Your task to perform on an android device: turn on showing notifications on the lock screen Image 0: 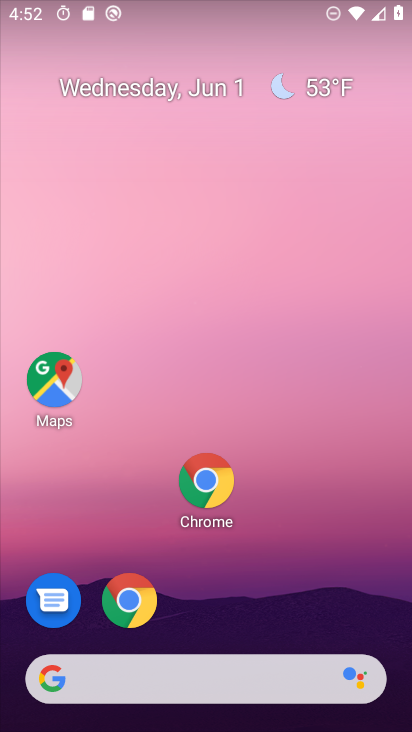
Step 0: drag from (239, 566) to (147, 135)
Your task to perform on an android device: turn on showing notifications on the lock screen Image 1: 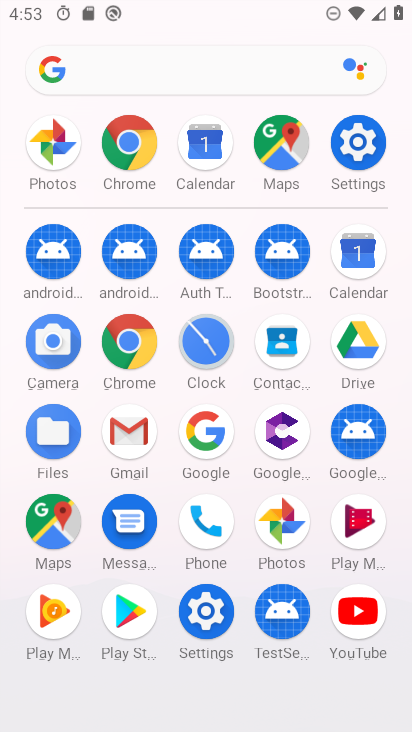
Step 1: click (345, 139)
Your task to perform on an android device: turn on showing notifications on the lock screen Image 2: 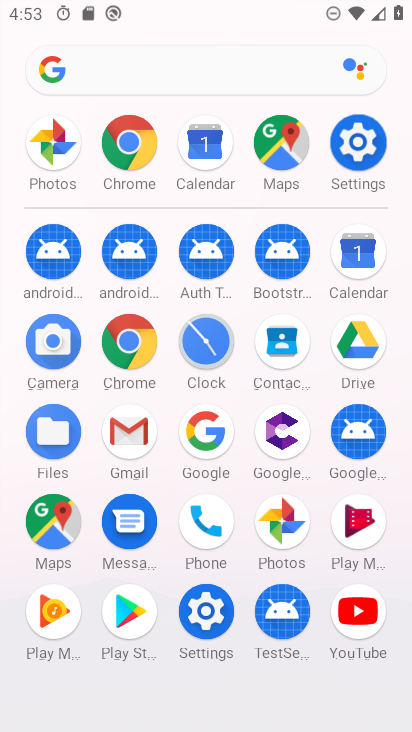
Step 2: click (357, 147)
Your task to perform on an android device: turn on showing notifications on the lock screen Image 3: 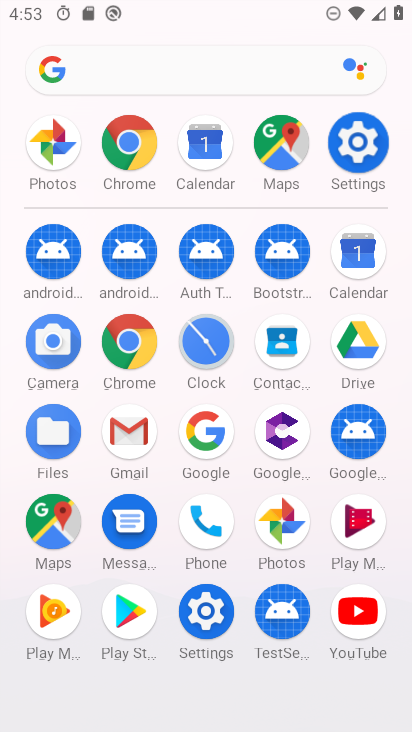
Step 3: click (360, 151)
Your task to perform on an android device: turn on showing notifications on the lock screen Image 4: 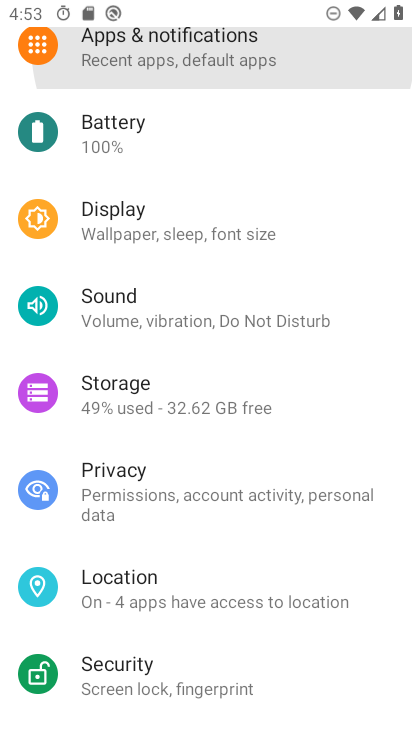
Step 4: click (360, 151)
Your task to perform on an android device: turn on showing notifications on the lock screen Image 5: 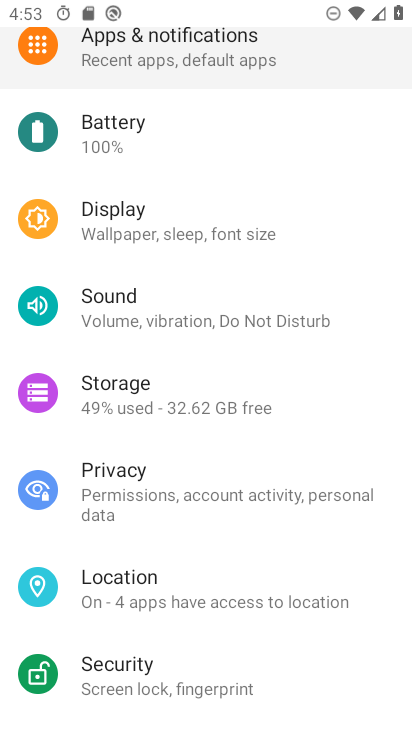
Step 5: click (357, 152)
Your task to perform on an android device: turn on showing notifications on the lock screen Image 6: 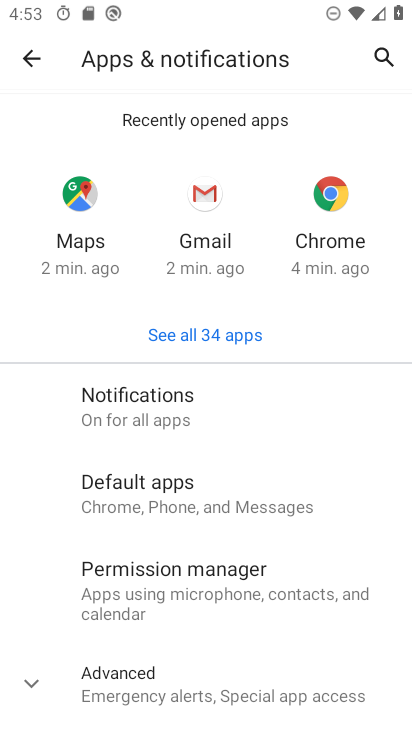
Step 6: click (35, 56)
Your task to perform on an android device: turn on showing notifications on the lock screen Image 7: 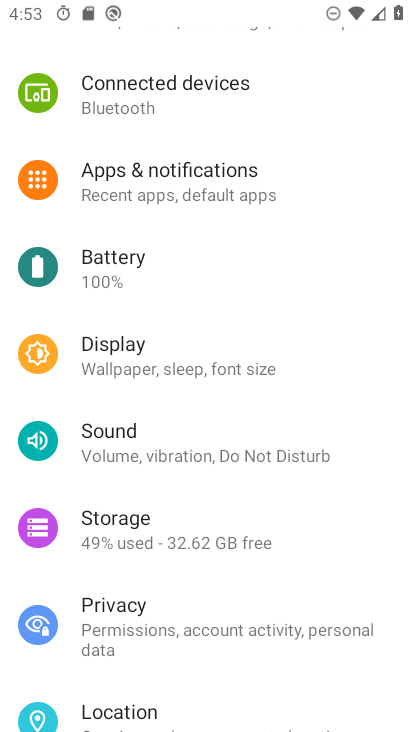
Step 7: click (137, 172)
Your task to perform on an android device: turn on showing notifications on the lock screen Image 8: 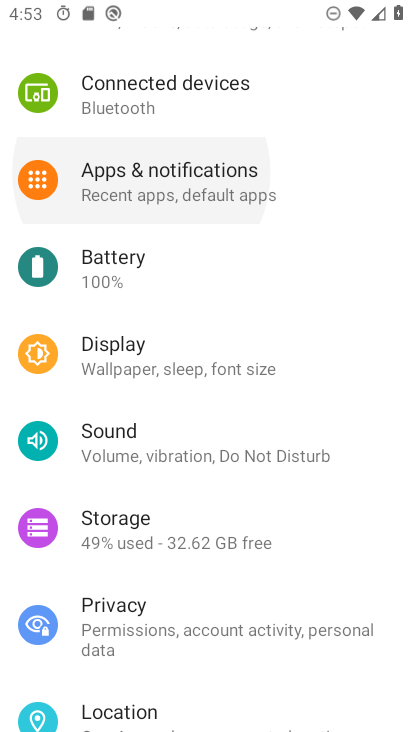
Step 8: click (137, 173)
Your task to perform on an android device: turn on showing notifications on the lock screen Image 9: 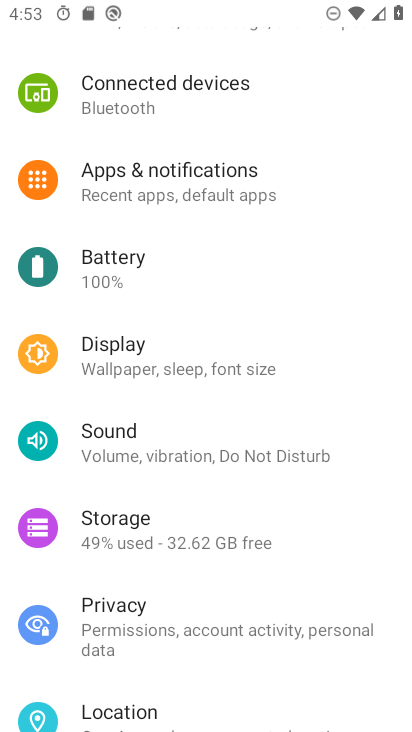
Step 9: click (139, 175)
Your task to perform on an android device: turn on showing notifications on the lock screen Image 10: 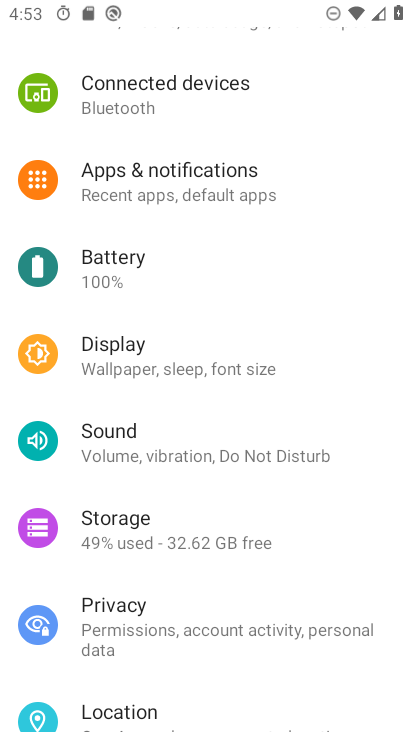
Step 10: click (152, 176)
Your task to perform on an android device: turn on showing notifications on the lock screen Image 11: 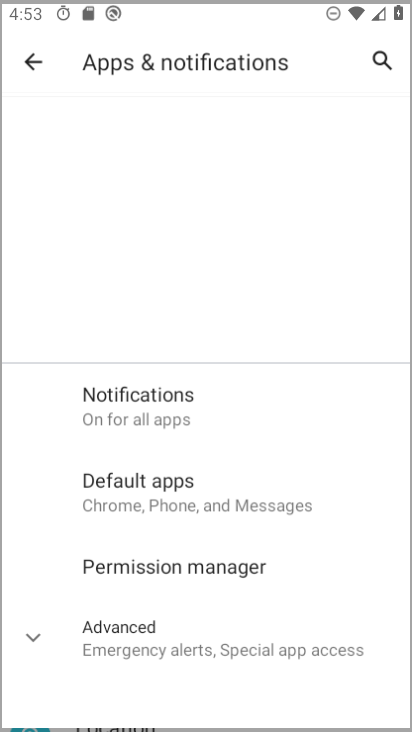
Step 11: click (153, 177)
Your task to perform on an android device: turn on showing notifications on the lock screen Image 12: 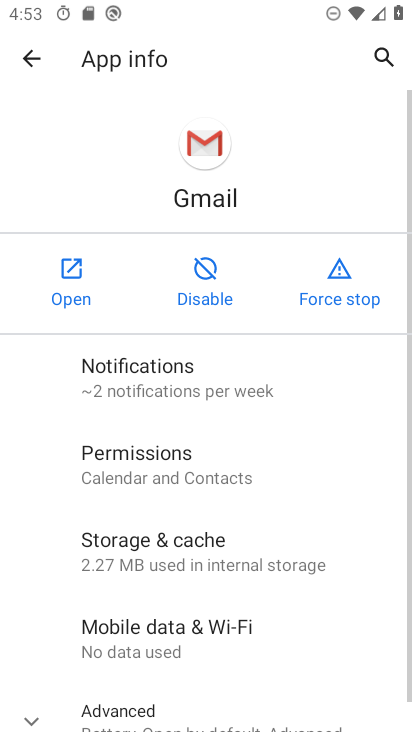
Step 12: click (165, 395)
Your task to perform on an android device: turn on showing notifications on the lock screen Image 13: 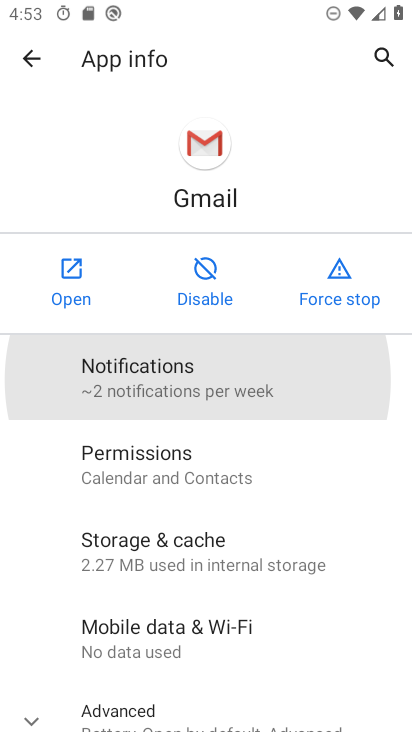
Step 13: click (175, 394)
Your task to perform on an android device: turn on showing notifications on the lock screen Image 14: 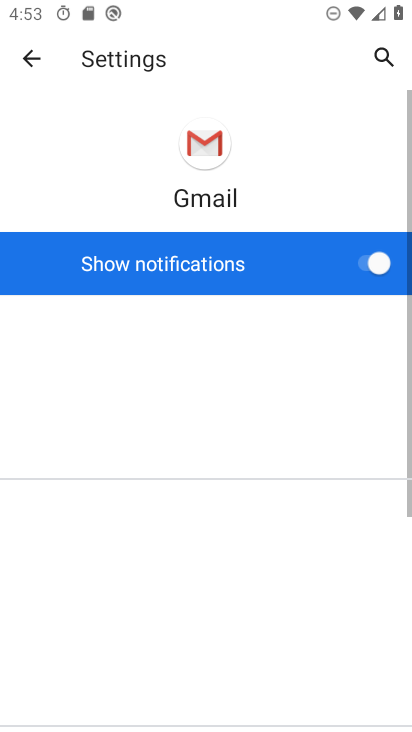
Step 14: click (170, 386)
Your task to perform on an android device: turn on showing notifications on the lock screen Image 15: 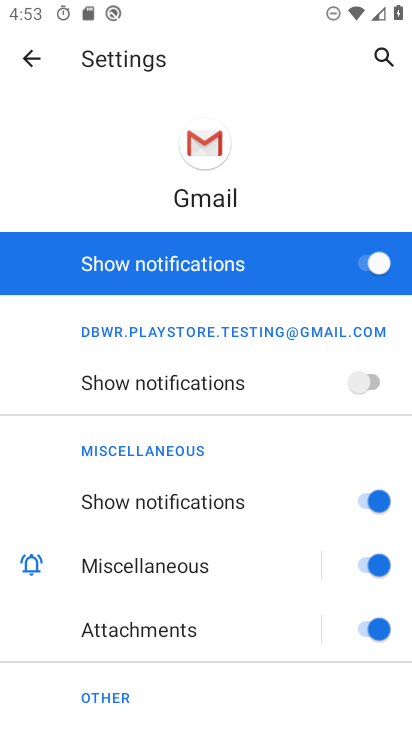
Step 15: click (139, 36)
Your task to perform on an android device: turn on showing notifications on the lock screen Image 16: 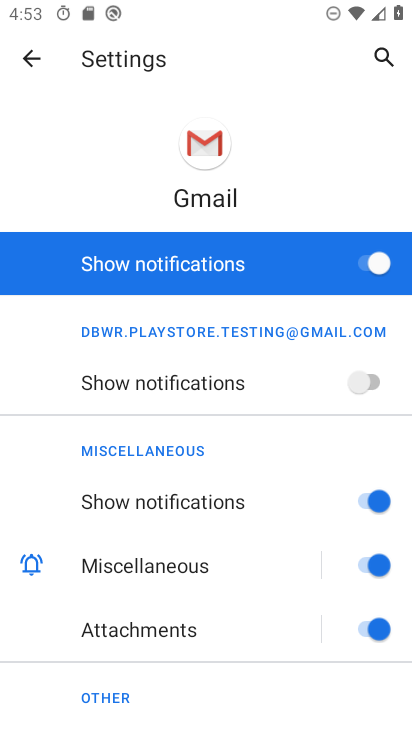
Step 16: drag from (210, 466) to (233, 171)
Your task to perform on an android device: turn on showing notifications on the lock screen Image 17: 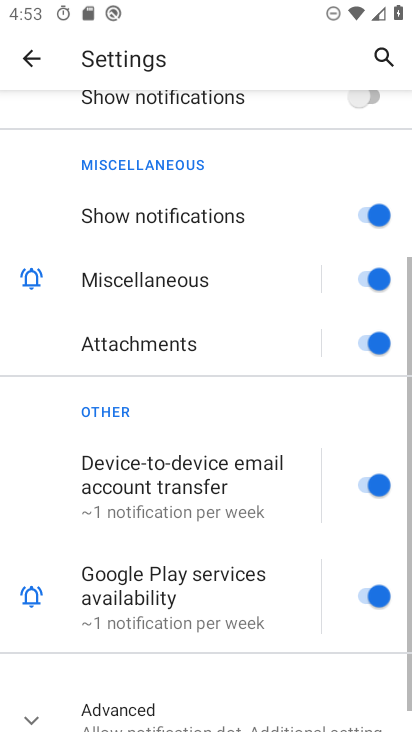
Step 17: drag from (205, 135) to (177, 40)
Your task to perform on an android device: turn on showing notifications on the lock screen Image 18: 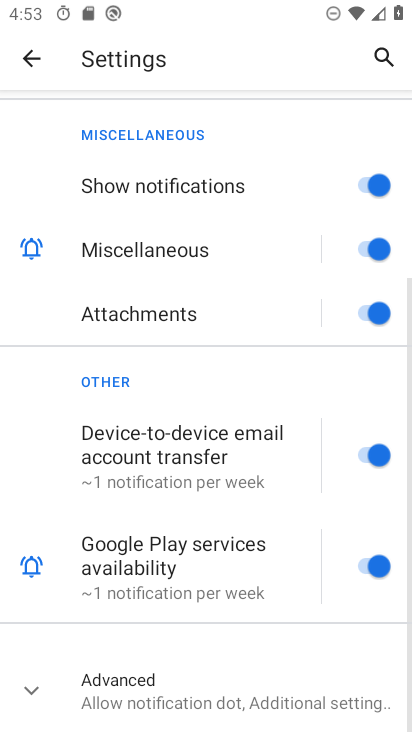
Step 18: drag from (210, 460) to (160, 37)
Your task to perform on an android device: turn on showing notifications on the lock screen Image 19: 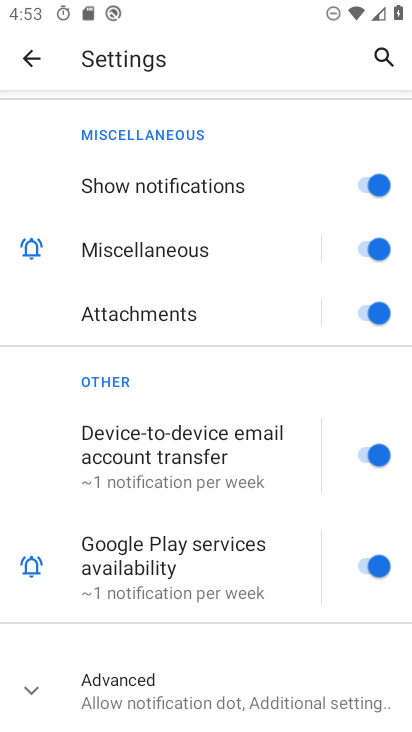
Step 19: drag from (283, 542) to (163, 173)
Your task to perform on an android device: turn on showing notifications on the lock screen Image 20: 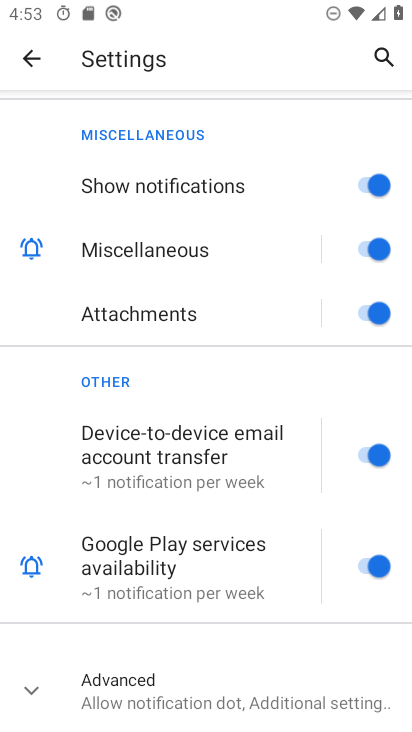
Step 20: click (15, 53)
Your task to perform on an android device: turn on showing notifications on the lock screen Image 21: 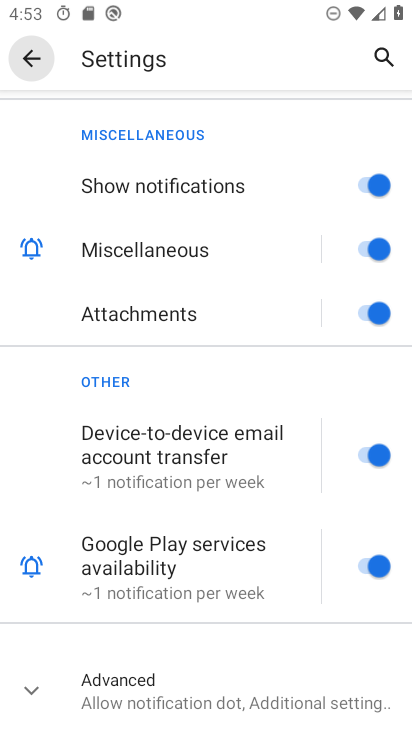
Step 21: click (36, 58)
Your task to perform on an android device: turn on showing notifications on the lock screen Image 22: 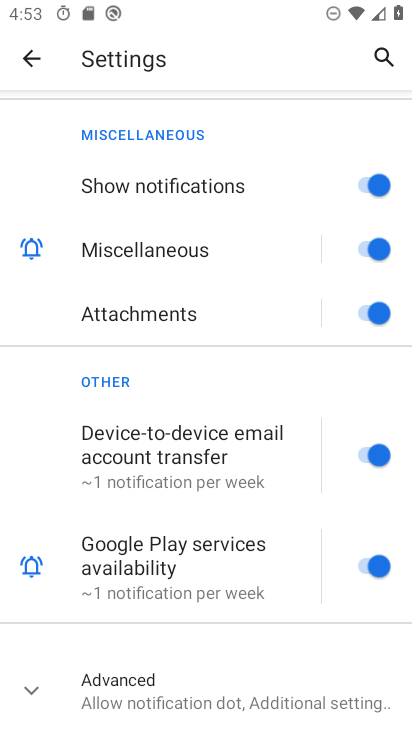
Step 22: click (36, 58)
Your task to perform on an android device: turn on showing notifications on the lock screen Image 23: 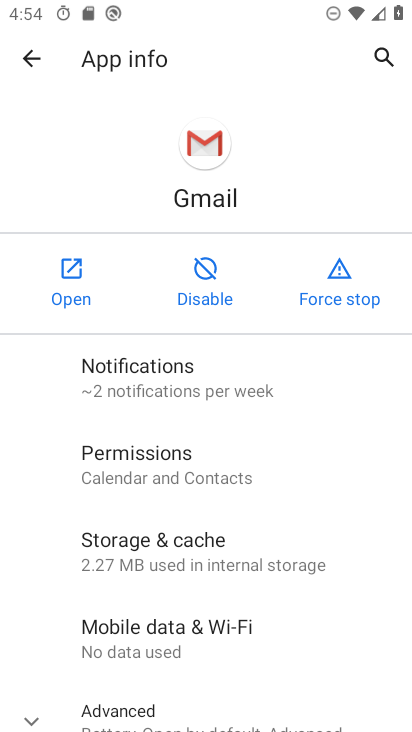
Step 23: click (31, 55)
Your task to perform on an android device: turn on showing notifications on the lock screen Image 24: 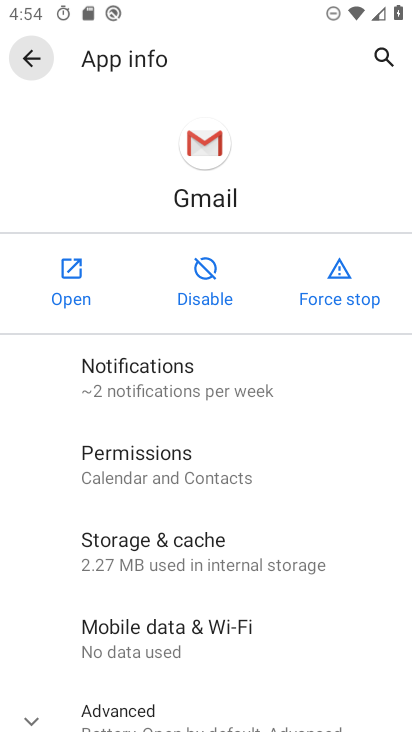
Step 24: click (29, 55)
Your task to perform on an android device: turn on showing notifications on the lock screen Image 25: 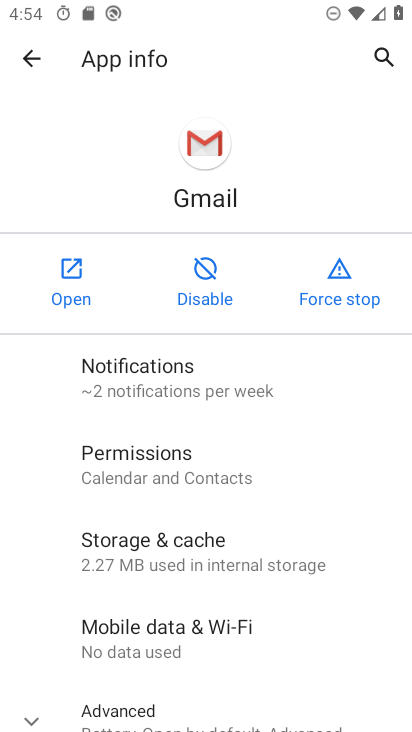
Step 25: click (25, 58)
Your task to perform on an android device: turn on showing notifications on the lock screen Image 26: 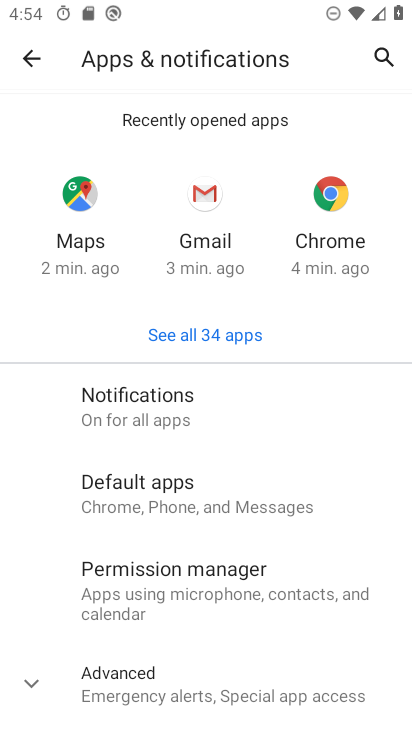
Step 26: drag from (183, 615) to (142, 253)
Your task to perform on an android device: turn on showing notifications on the lock screen Image 27: 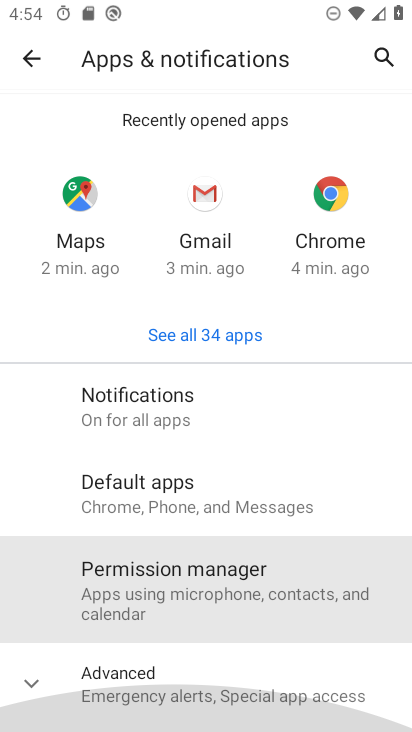
Step 27: drag from (260, 551) to (223, 289)
Your task to perform on an android device: turn on showing notifications on the lock screen Image 28: 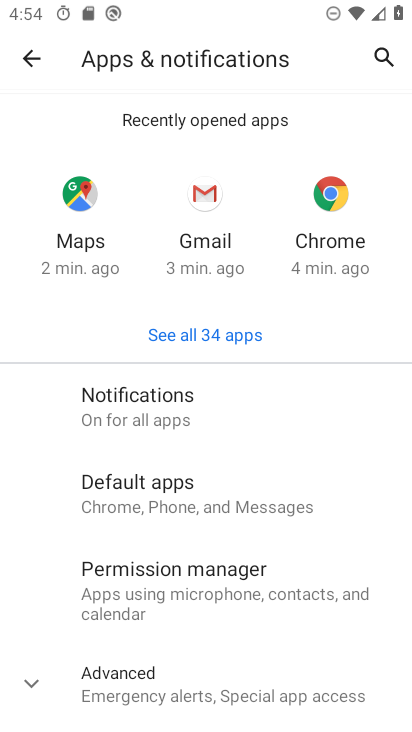
Step 28: click (142, 404)
Your task to perform on an android device: turn on showing notifications on the lock screen Image 29: 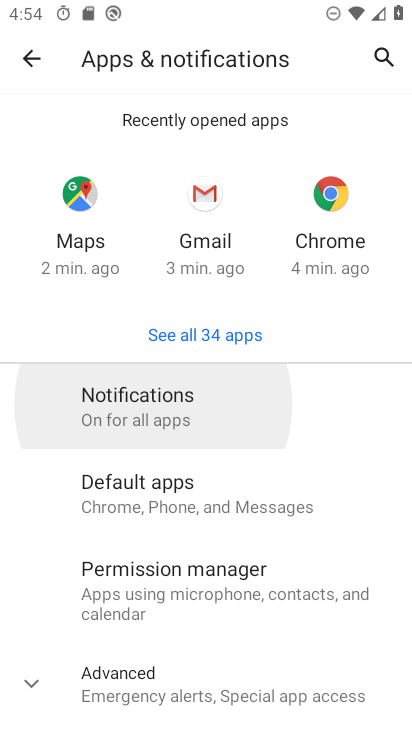
Step 29: click (140, 407)
Your task to perform on an android device: turn on showing notifications on the lock screen Image 30: 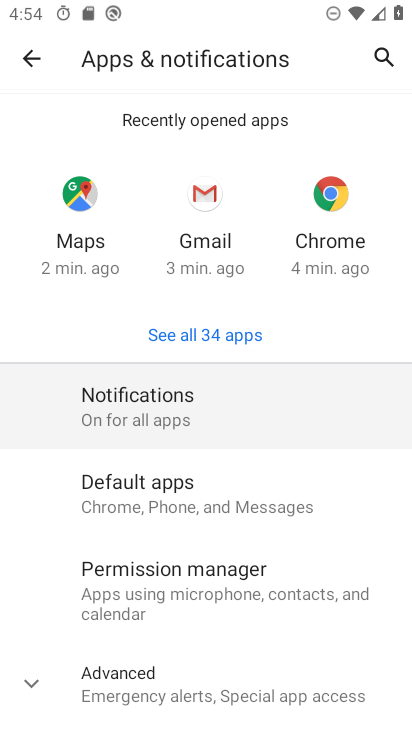
Step 30: click (140, 407)
Your task to perform on an android device: turn on showing notifications on the lock screen Image 31: 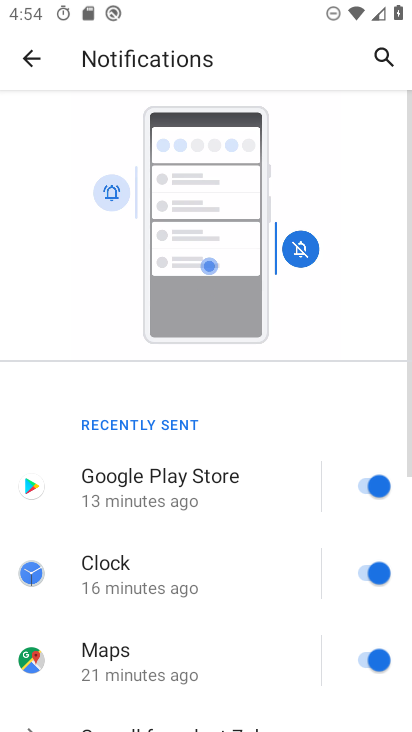
Step 31: drag from (244, 490) to (199, 173)
Your task to perform on an android device: turn on showing notifications on the lock screen Image 32: 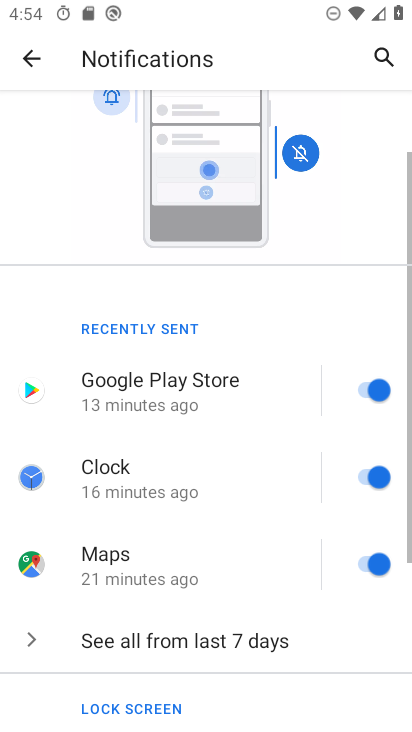
Step 32: drag from (251, 466) to (211, 216)
Your task to perform on an android device: turn on showing notifications on the lock screen Image 33: 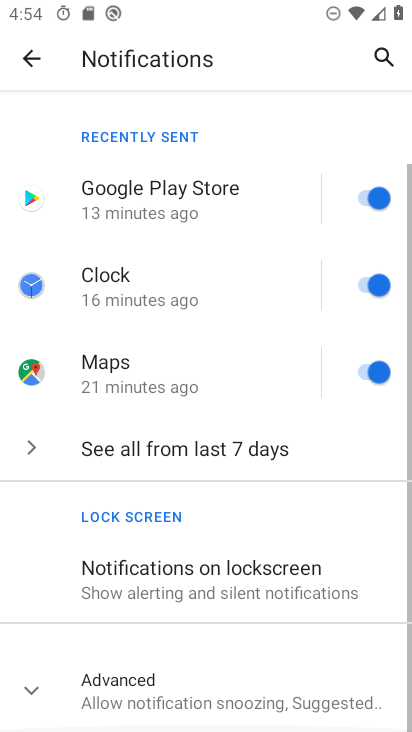
Step 33: drag from (296, 556) to (187, 146)
Your task to perform on an android device: turn on showing notifications on the lock screen Image 34: 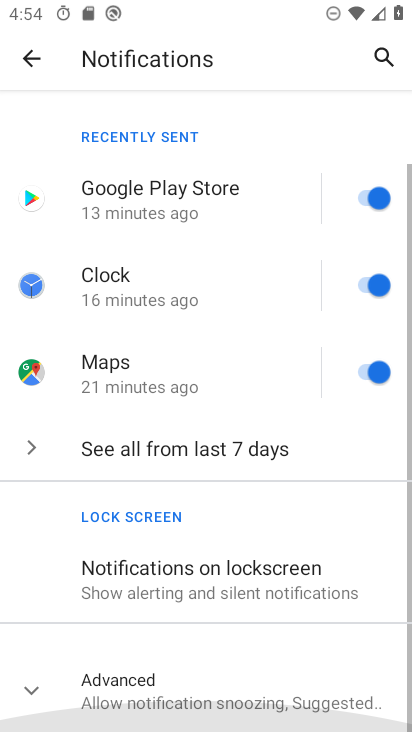
Step 34: drag from (212, 430) to (114, 81)
Your task to perform on an android device: turn on showing notifications on the lock screen Image 35: 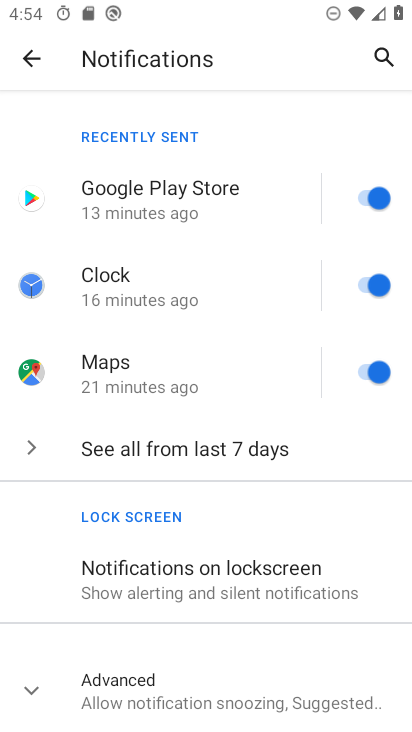
Step 35: click (152, 573)
Your task to perform on an android device: turn on showing notifications on the lock screen Image 36: 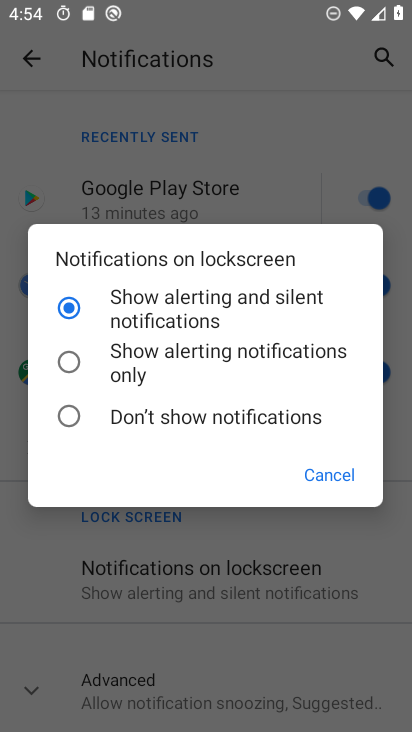
Step 36: click (345, 468)
Your task to perform on an android device: turn on showing notifications on the lock screen Image 37: 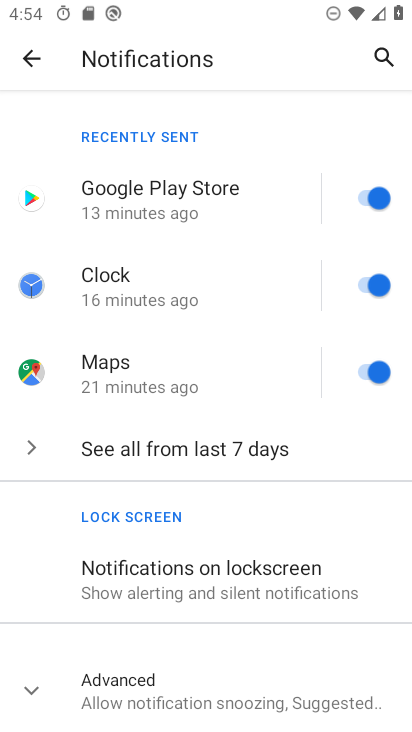
Step 37: task complete